Your task to perform on an android device: open app "Instagram" (install if not already installed), go to login, and select forgot password Image 0: 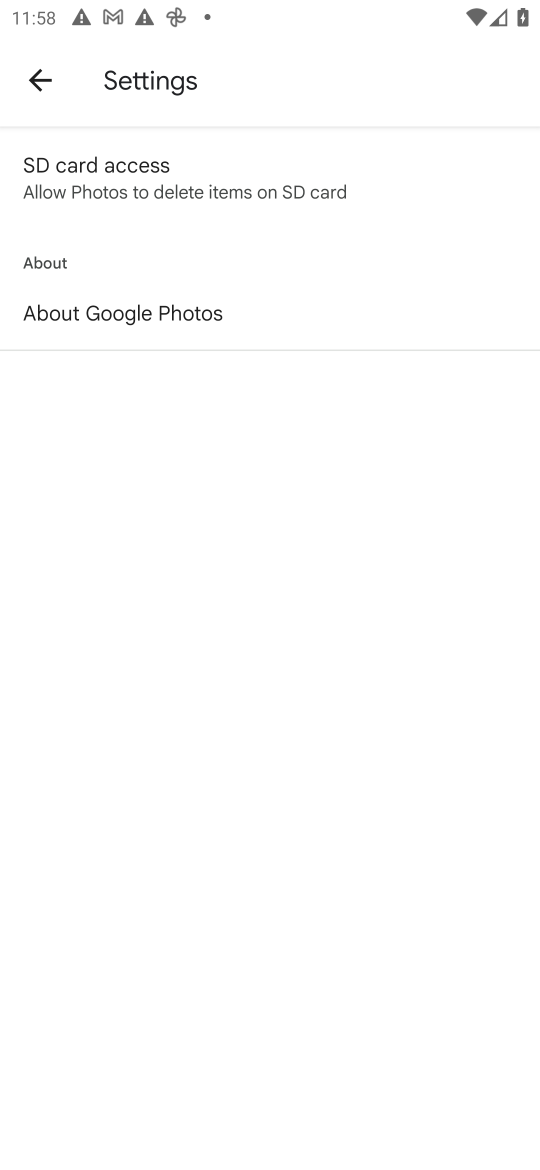
Step 0: press home button
Your task to perform on an android device: open app "Instagram" (install if not already installed), go to login, and select forgot password Image 1: 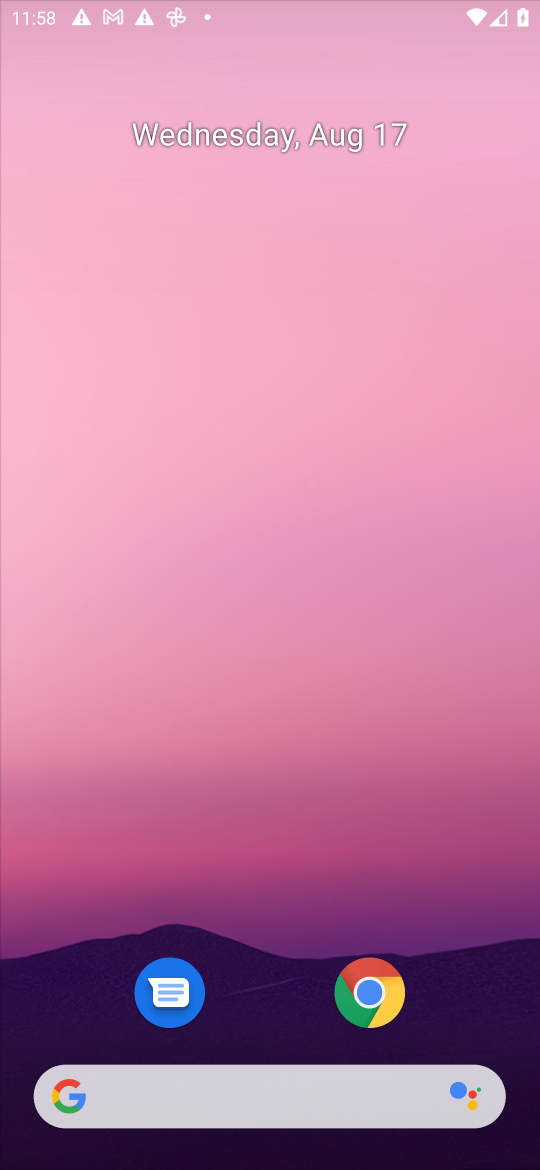
Step 1: drag from (514, 1045) to (124, 50)
Your task to perform on an android device: open app "Instagram" (install if not already installed), go to login, and select forgot password Image 2: 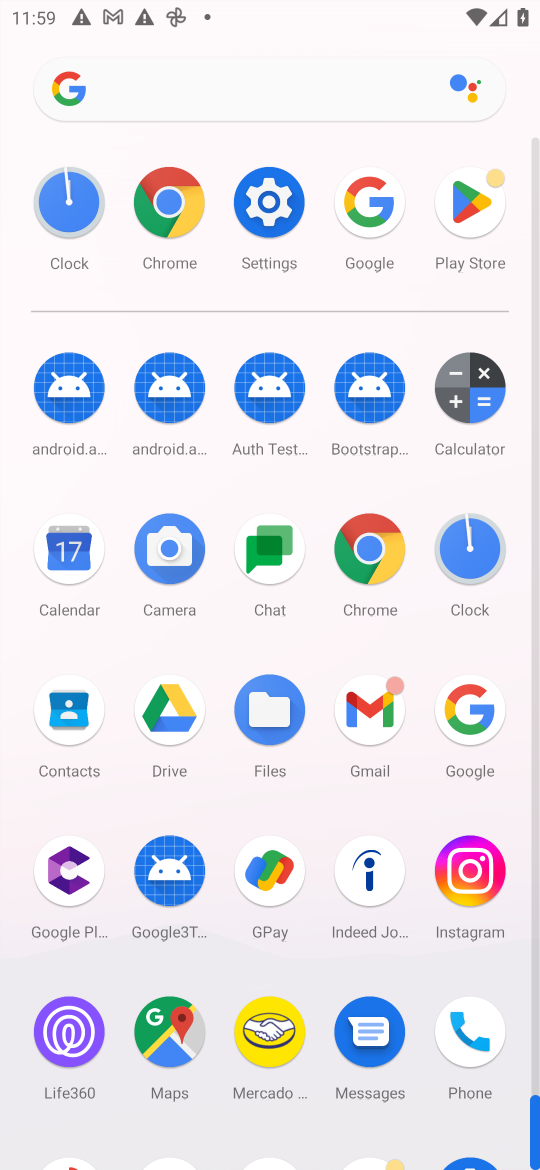
Step 2: click (461, 199)
Your task to perform on an android device: open app "Instagram" (install if not already installed), go to login, and select forgot password Image 3: 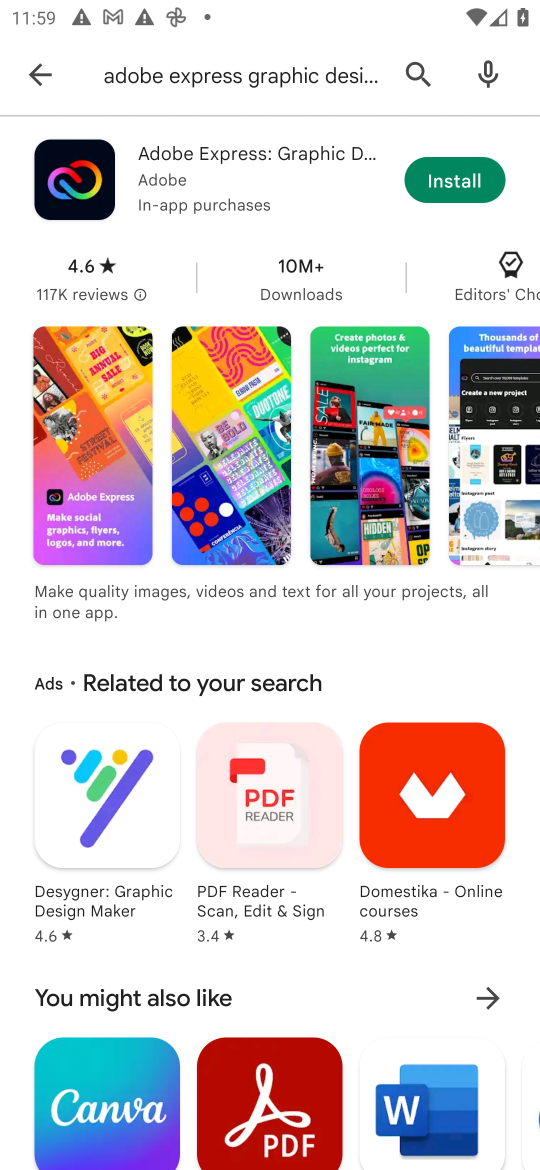
Step 3: press back button
Your task to perform on an android device: open app "Instagram" (install if not already installed), go to login, and select forgot password Image 4: 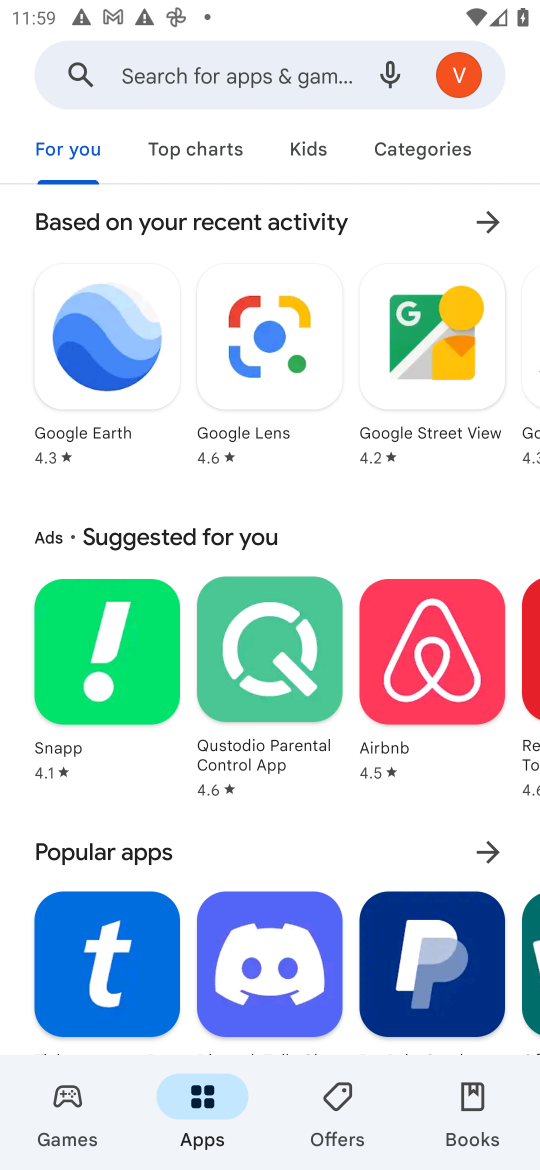
Step 4: click (222, 87)
Your task to perform on an android device: open app "Instagram" (install if not already installed), go to login, and select forgot password Image 5: 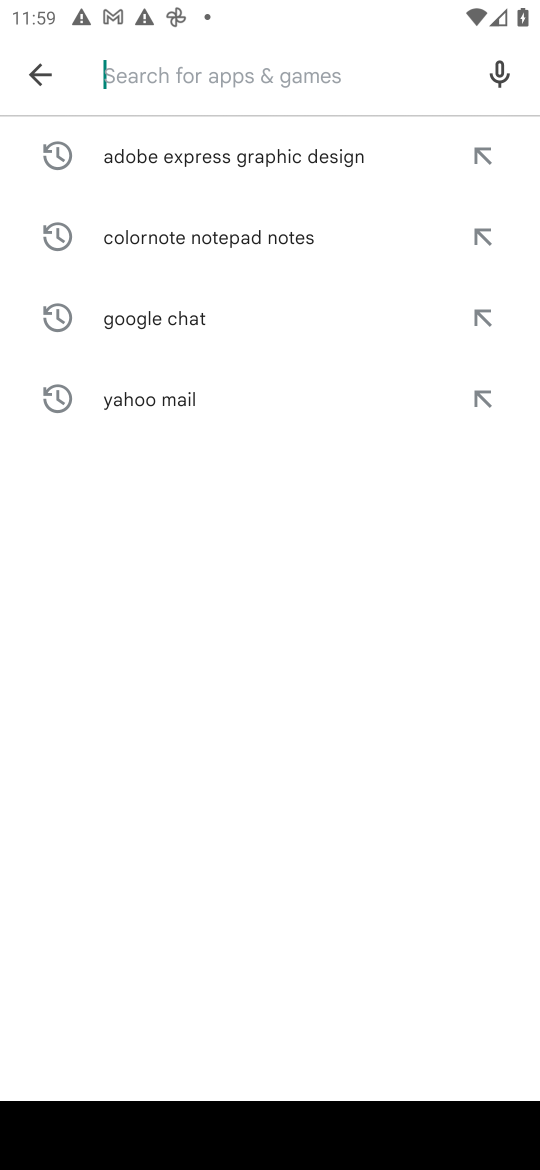
Step 5: type "Instagram"
Your task to perform on an android device: open app "Instagram" (install if not already installed), go to login, and select forgot password Image 6: 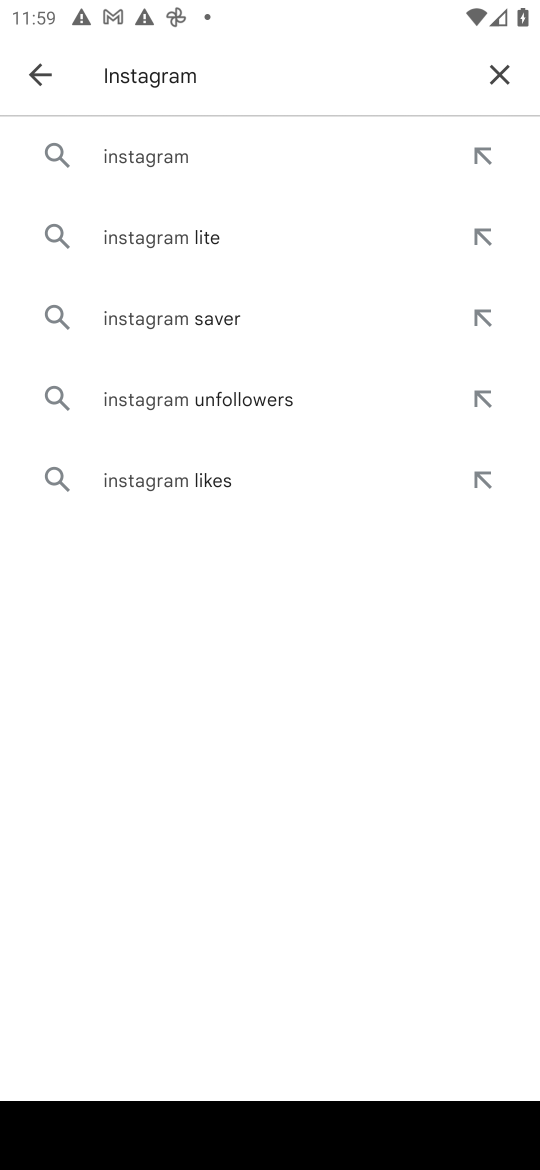
Step 6: click (130, 157)
Your task to perform on an android device: open app "Instagram" (install if not already installed), go to login, and select forgot password Image 7: 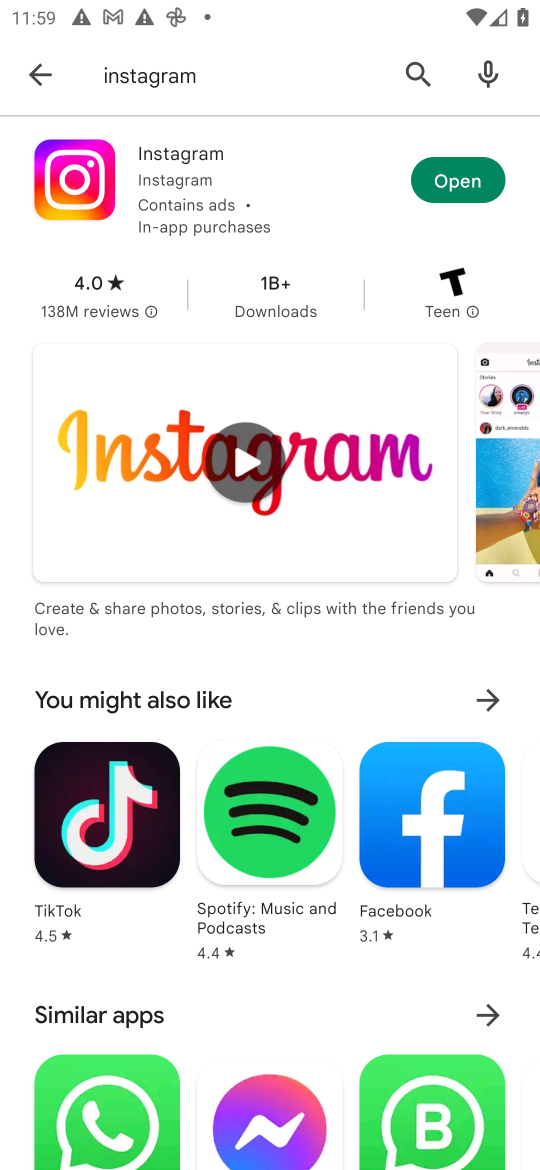
Step 7: task complete